Your task to perform on an android device: open a bookmark in the chrome app Image 0: 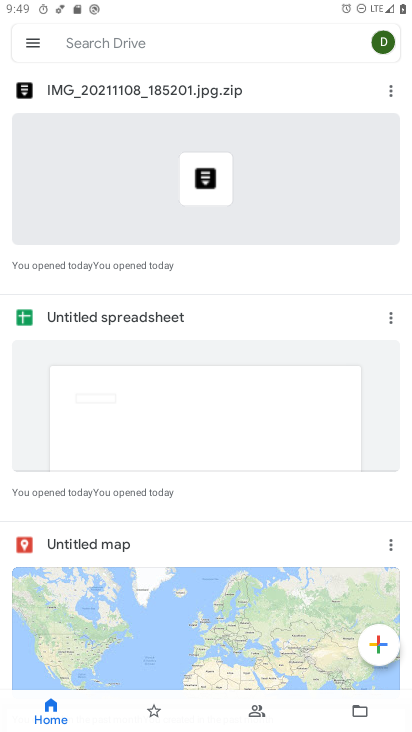
Step 0: press home button
Your task to perform on an android device: open a bookmark in the chrome app Image 1: 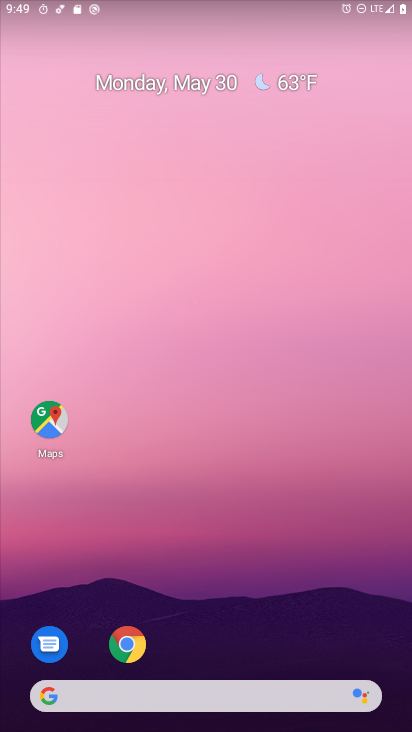
Step 1: click (133, 643)
Your task to perform on an android device: open a bookmark in the chrome app Image 2: 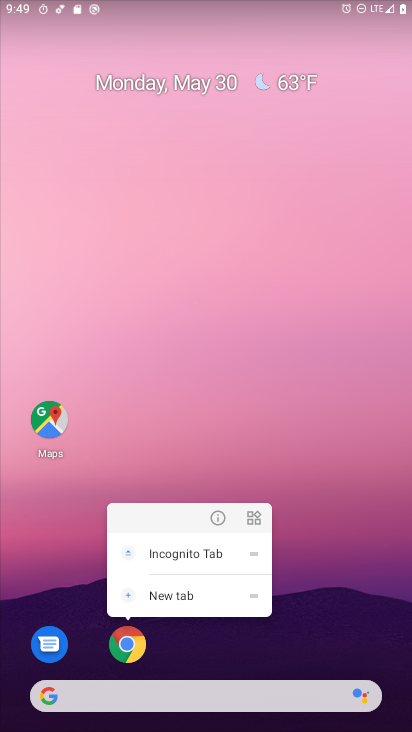
Step 2: click (126, 643)
Your task to perform on an android device: open a bookmark in the chrome app Image 3: 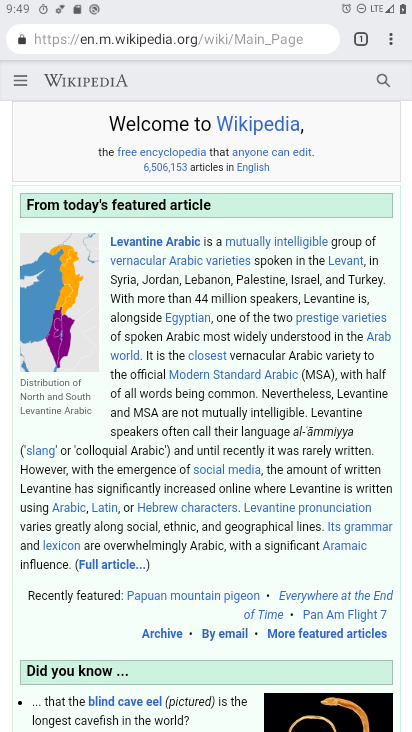
Step 3: click (384, 36)
Your task to perform on an android device: open a bookmark in the chrome app Image 4: 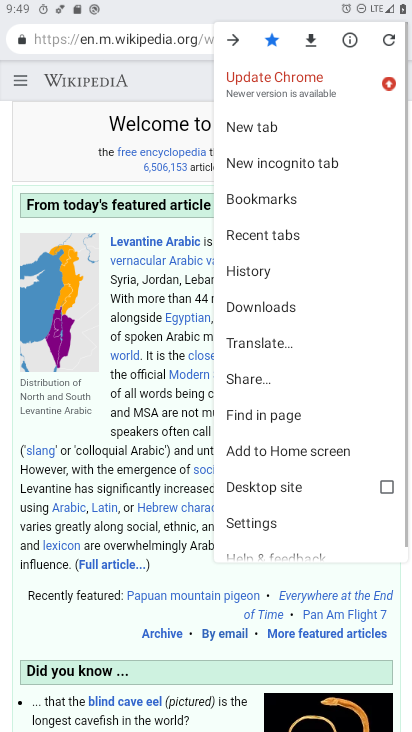
Step 4: click (284, 208)
Your task to perform on an android device: open a bookmark in the chrome app Image 5: 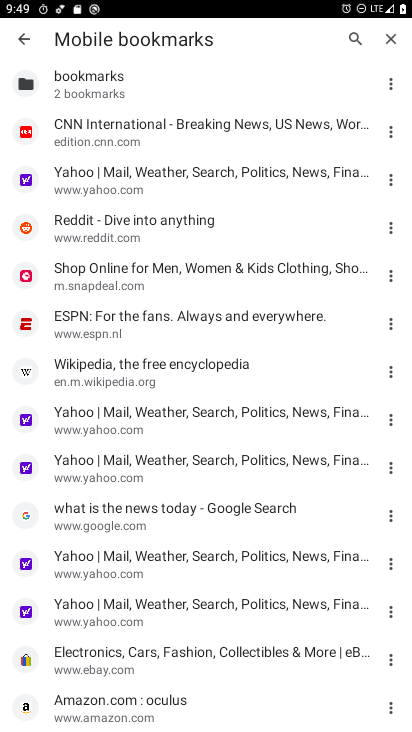
Step 5: click (121, 366)
Your task to perform on an android device: open a bookmark in the chrome app Image 6: 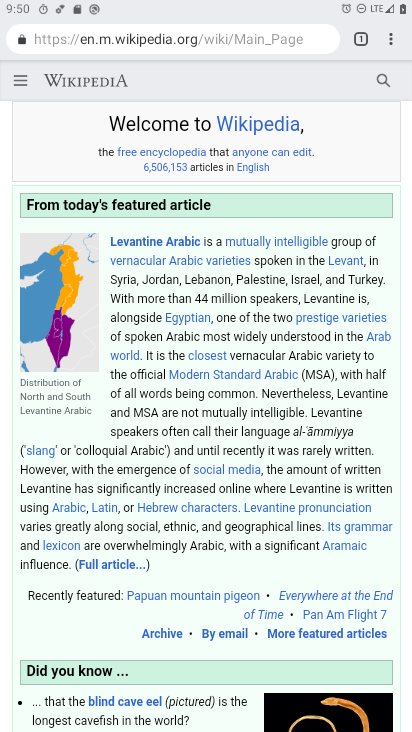
Step 6: task complete